Your task to perform on an android device: Open eBay Image 0: 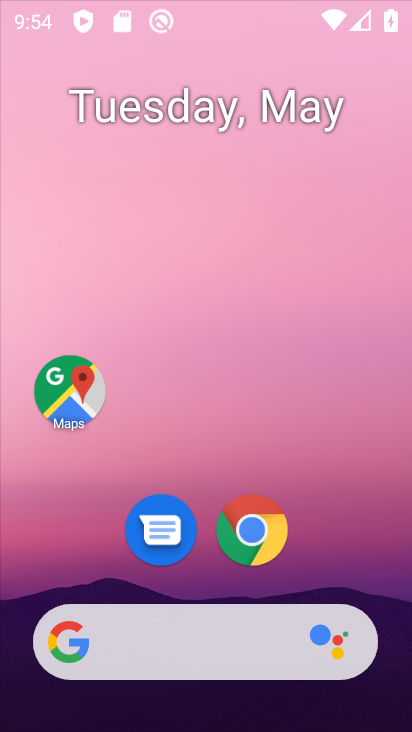
Step 0: drag from (256, 183) to (263, 70)
Your task to perform on an android device: Open eBay Image 1: 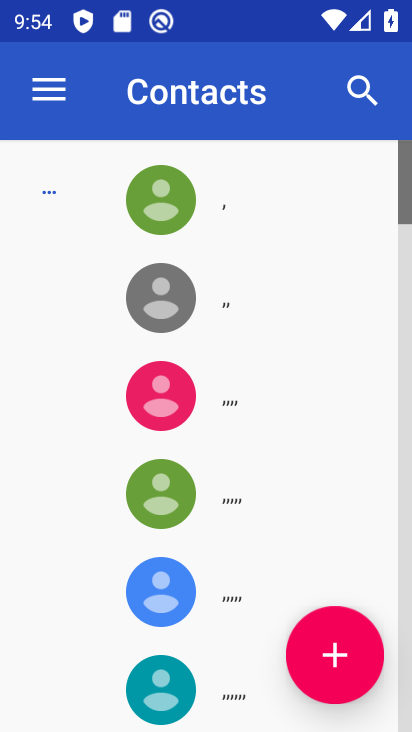
Step 1: press home button
Your task to perform on an android device: Open eBay Image 2: 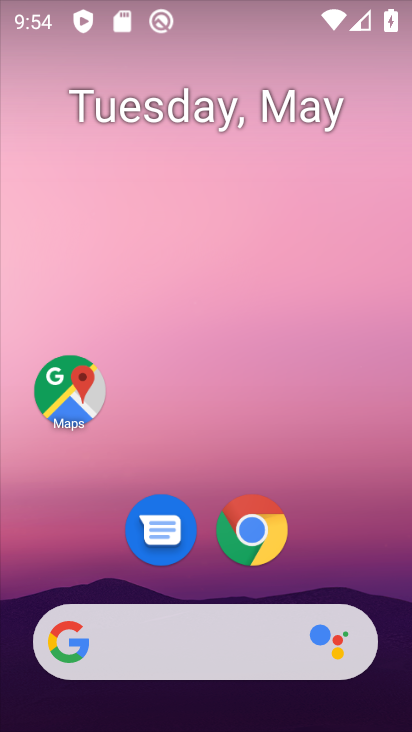
Step 2: drag from (180, 575) to (213, 72)
Your task to perform on an android device: Open eBay Image 3: 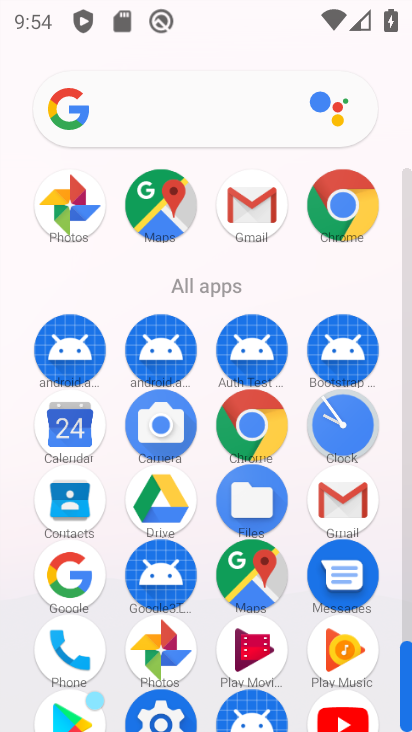
Step 3: click (171, 104)
Your task to perform on an android device: Open eBay Image 4: 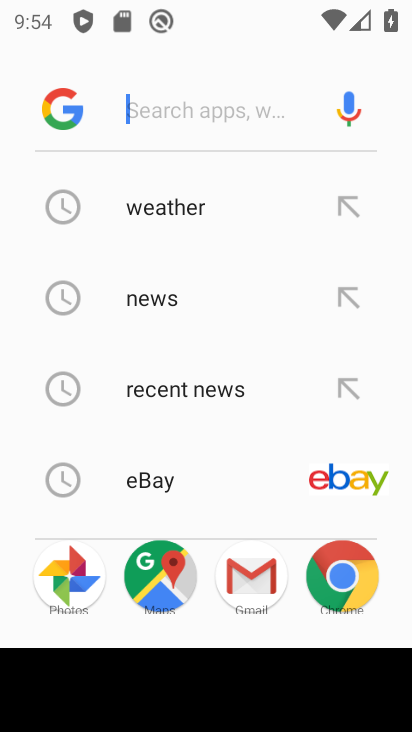
Step 4: type "ebay"
Your task to perform on an android device: Open eBay Image 5: 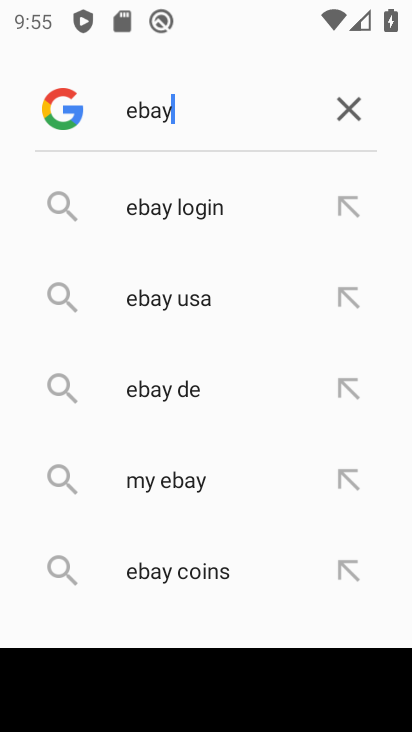
Step 5: click (361, 101)
Your task to perform on an android device: Open eBay Image 6: 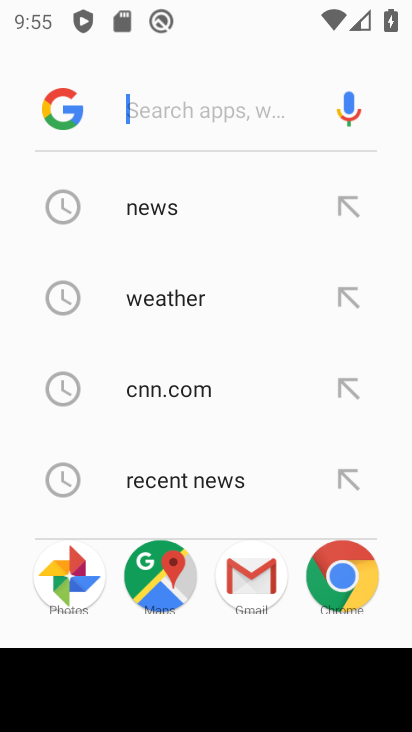
Step 6: click (207, 113)
Your task to perform on an android device: Open eBay Image 7: 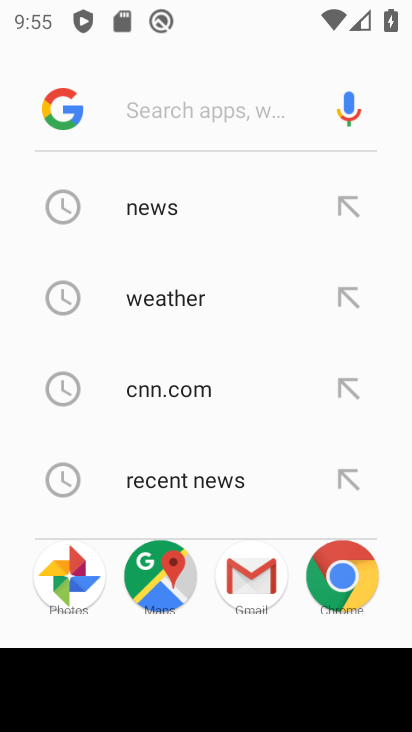
Step 7: type "ebay"
Your task to perform on an android device: Open eBay Image 8: 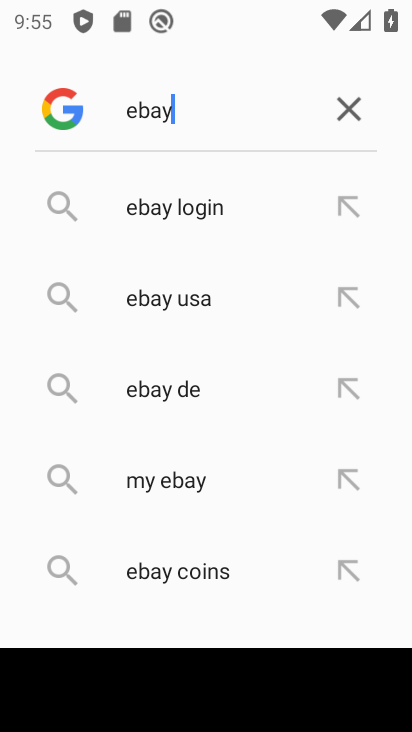
Step 8: click (152, 211)
Your task to perform on an android device: Open eBay Image 9: 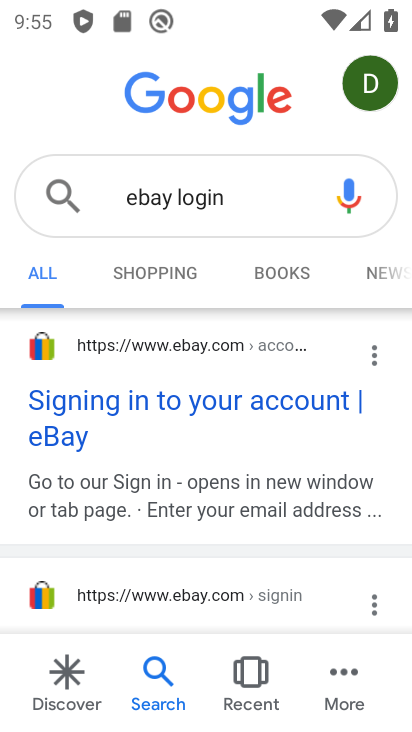
Step 9: drag from (159, 571) to (240, 446)
Your task to perform on an android device: Open eBay Image 10: 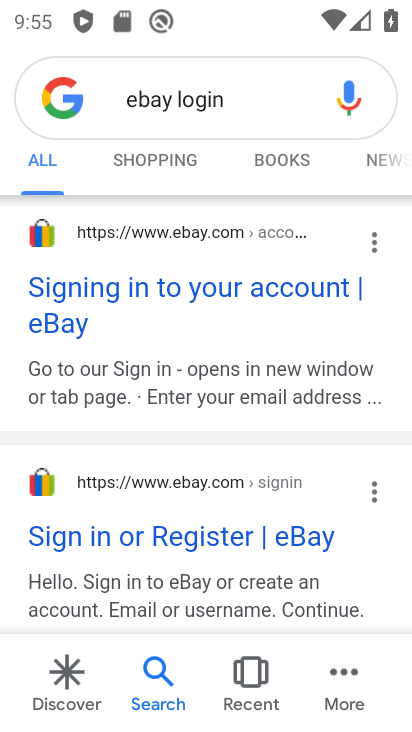
Step 10: click (197, 395)
Your task to perform on an android device: Open eBay Image 11: 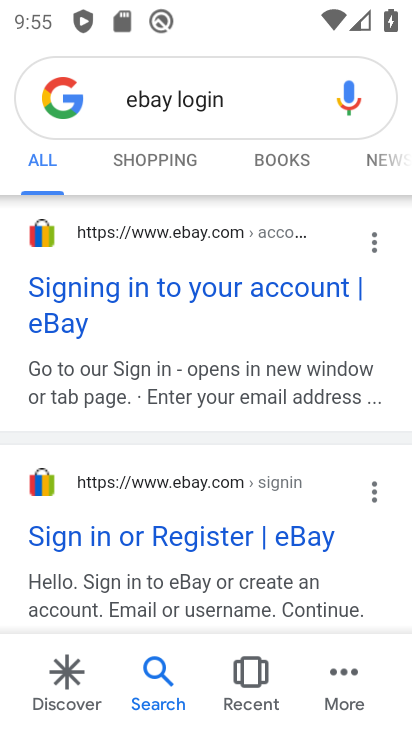
Step 11: drag from (175, 446) to (280, 223)
Your task to perform on an android device: Open eBay Image 12: 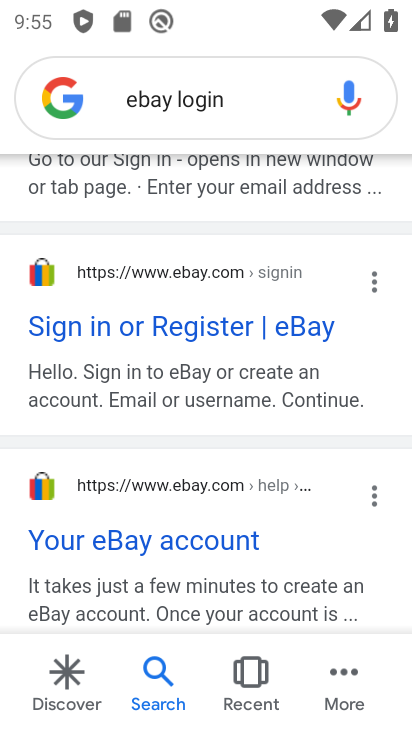
Step 12: drag from (259, 233) to (264, 609)
Your task to perform on an android device: Open eBay Image 13: 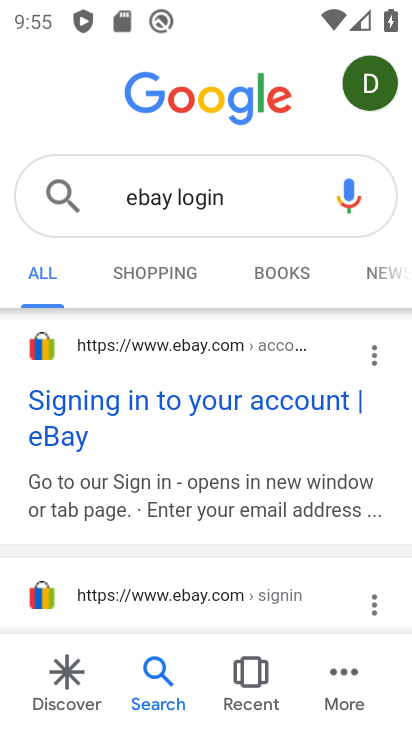
Step 13: drag from (224, 480) to (248, 319)
Your task to perform on an android device: Open eBay Image 14: 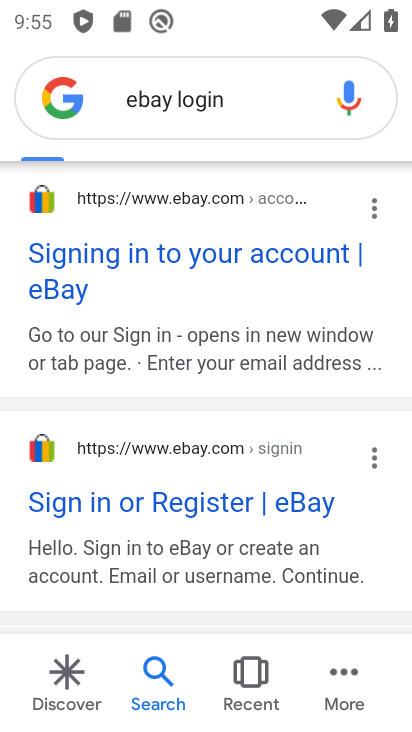
Step 14: click (113, 258)
Your task to perform on an android device: Open eBay Image 15: 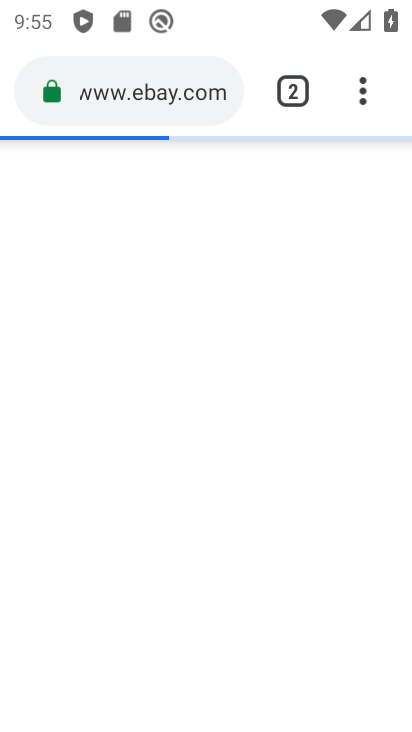
Step 15: task complete